Your task to perform on an android device: toggle wifi Image 0: 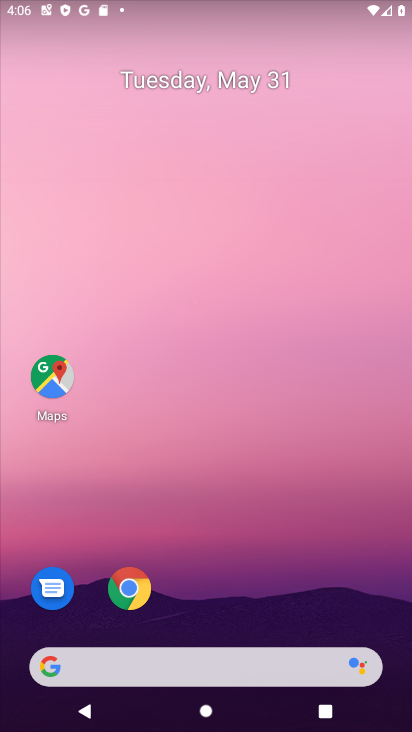
Step 0: drag from (176, 467) to (203, 652)
Your task to perform on an android device: toggle wifi Image 1: 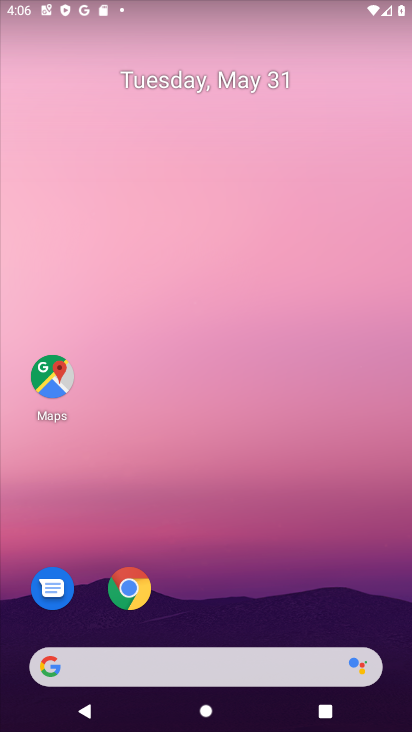
Step 1: drag from (242, 10) to (224, 666)
Your task to perform on an android device: toggle wifi Image 2: 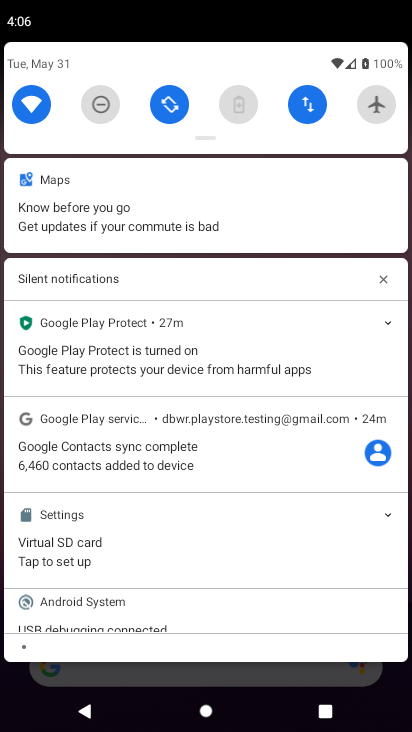
Step 2: click (40, 102)
Your task to perform on an android device: toggle wifi Image 3: 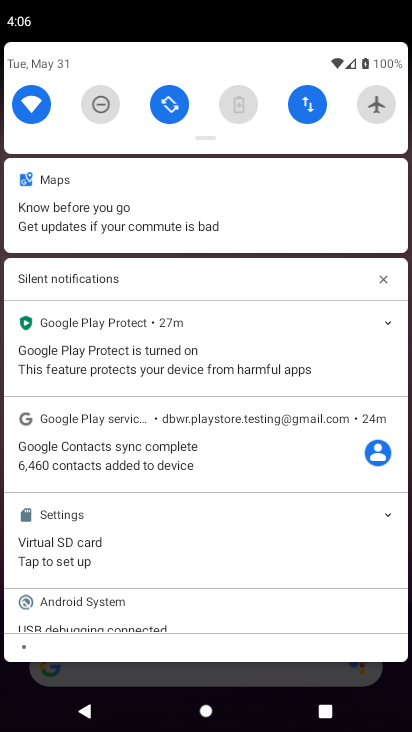
Step 3: click (40, 102)
Your task to perform on an android device: toggle wifi Image 4: 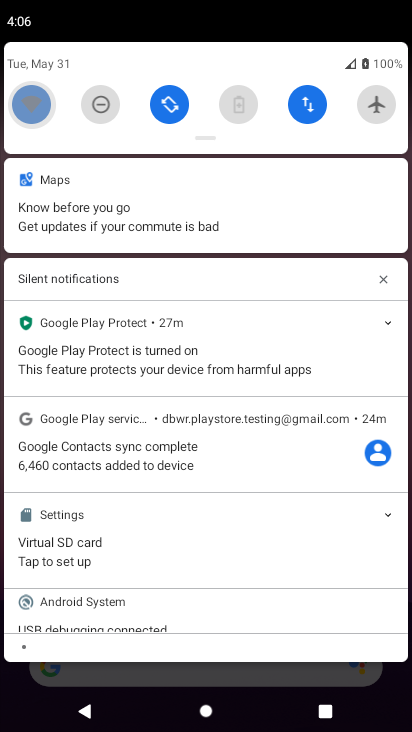
Step 4: click (40, 102)
Your task to perform on an android device: toggle wifi Image 5: 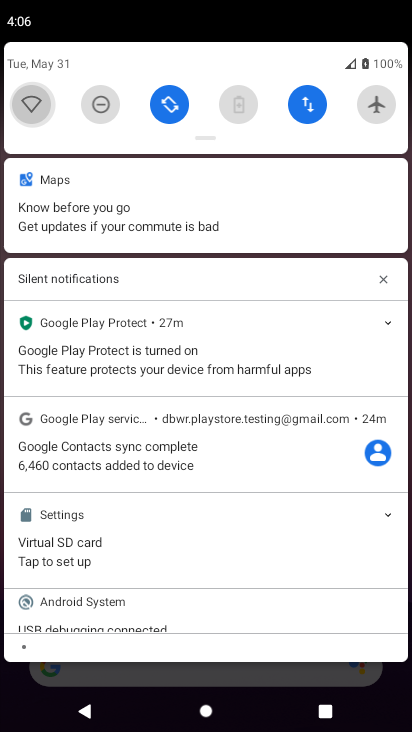
Step 5: click (40, 102)
Your task to perform on an android device: toggle wifi Image 6: 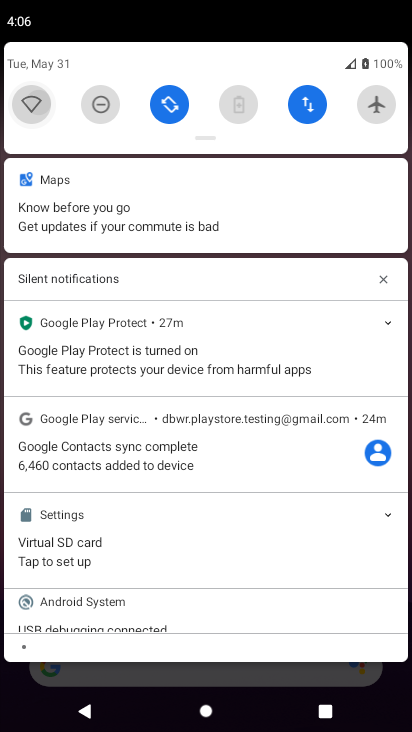
Step 6: click (40, 102)
Your task to perform on an android device: toggle wifi Image 7: 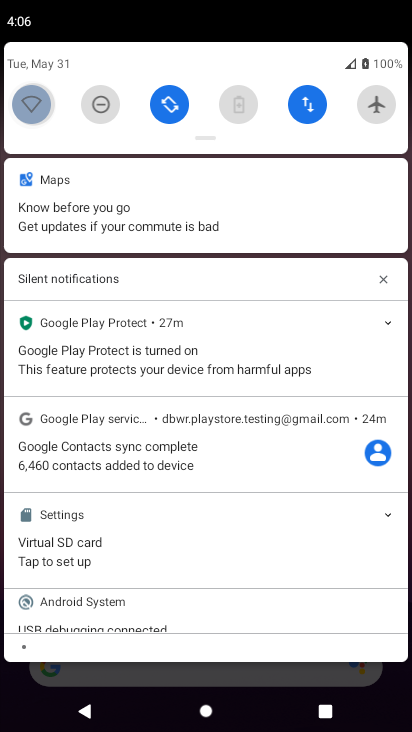
Step 7: click (40, 102)
Your task to perform on an android device: toggle wifi Image 8: 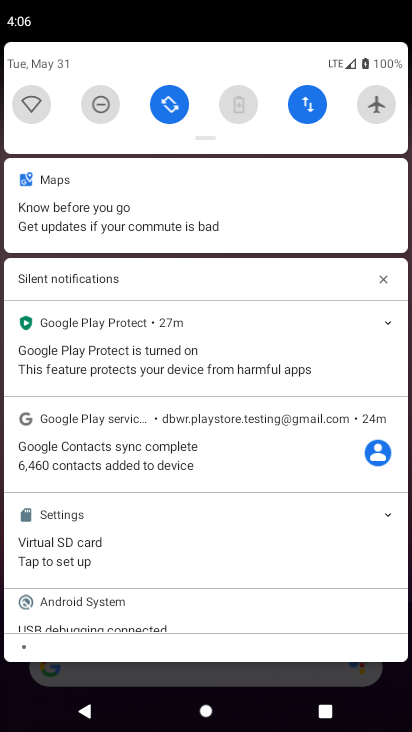
Step 8: click (40, 102)
Your task to perform on an android device: toggle wifi Image 9: 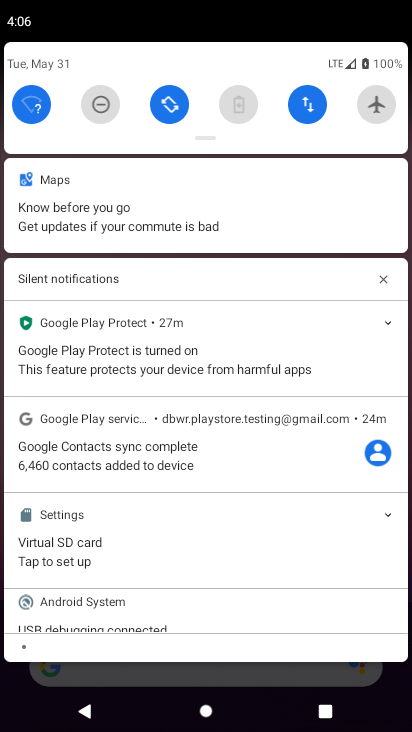
Step 9: task complete